Your task to perform on an android device: Open Maps and search for coffee Image 0: 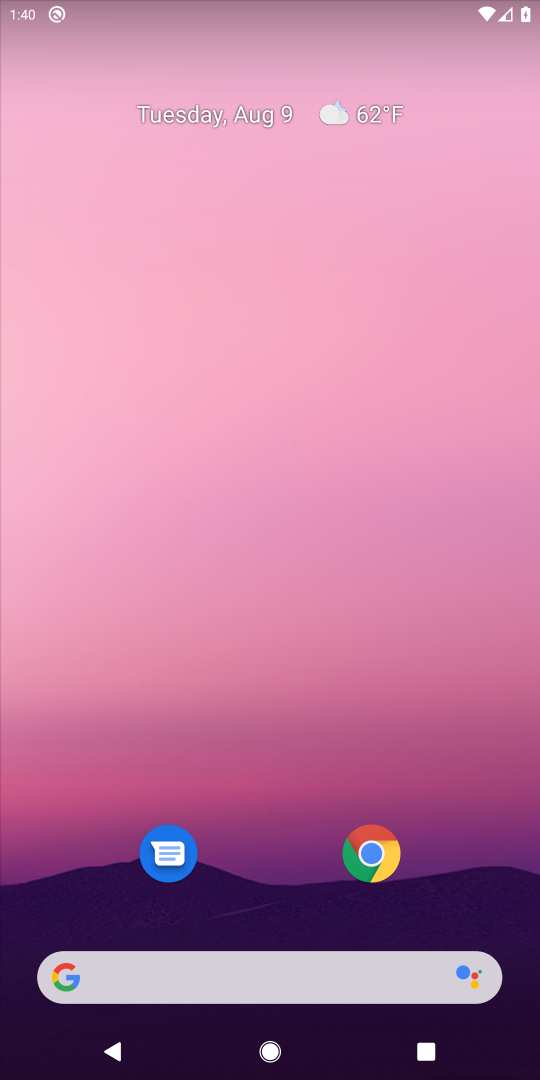
Step 0: press home button
Your task to perform on an android device: Open Maps and search for coffee Image 1: 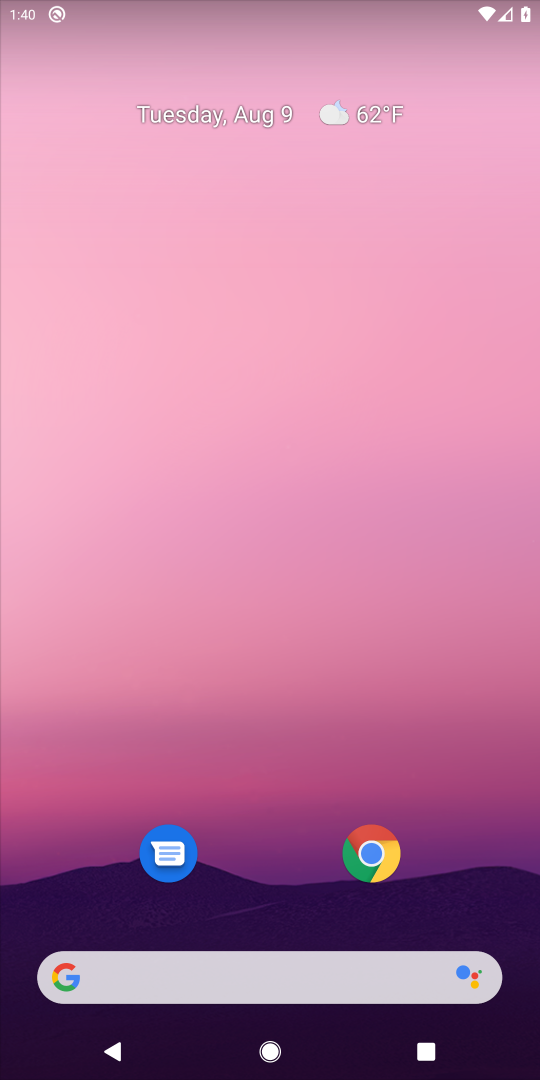
Step 1: drag from (285, 903) to (281, 85)
Your task to perform on an android device: Open Maps and search for coffee Image 2: 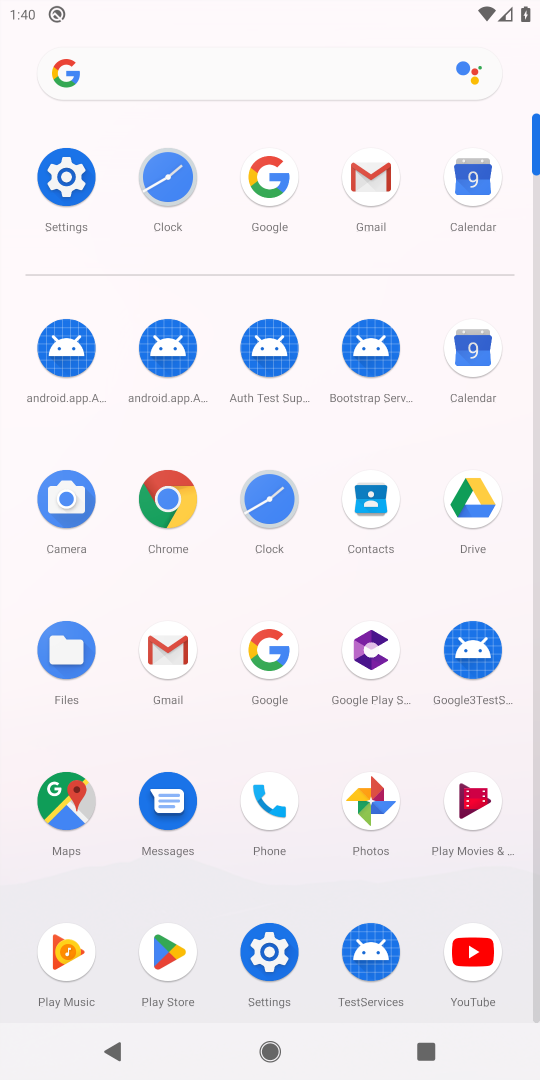
Step 2: click (74, 805)
Your task to perform on an android device: Open Maps and search for coffee Image 3: 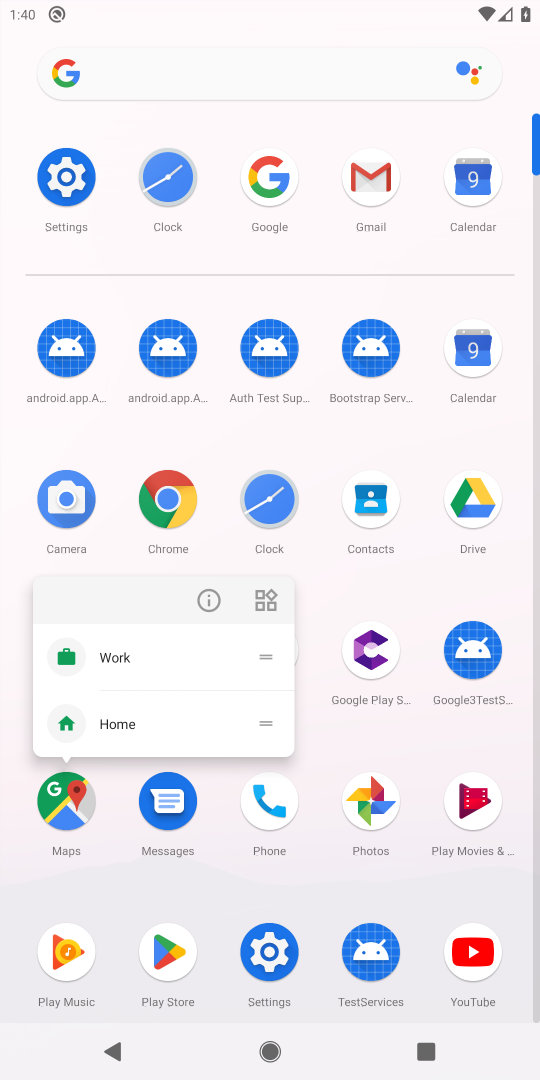
Step 3: click (71, 819)
Your task to perform on an android device: Open Maps and search for coffee Image 4: 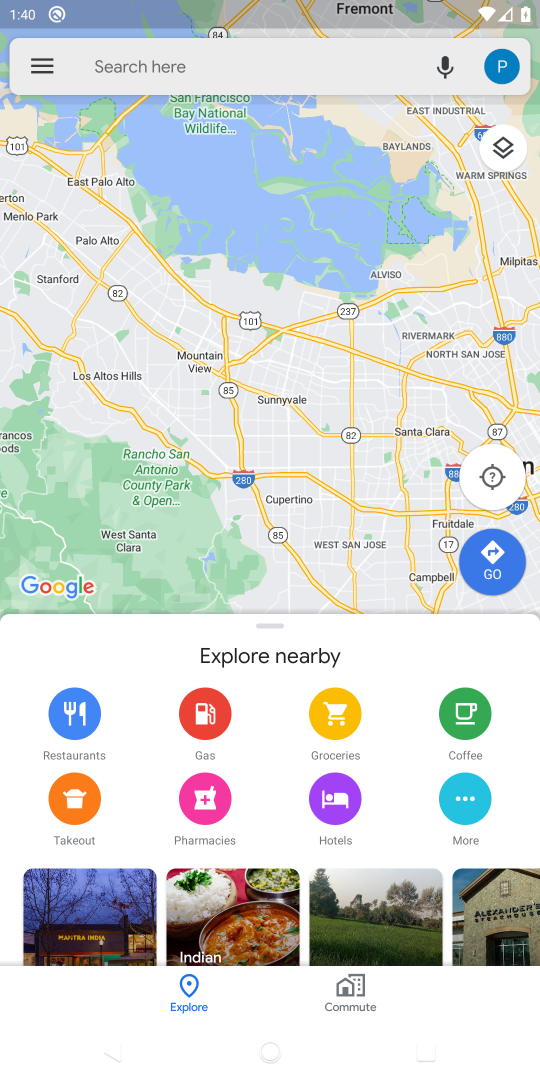
Step 4: click (239, 77)
Your task to perform on an android device: Open Maps and search for coffee Image 5: 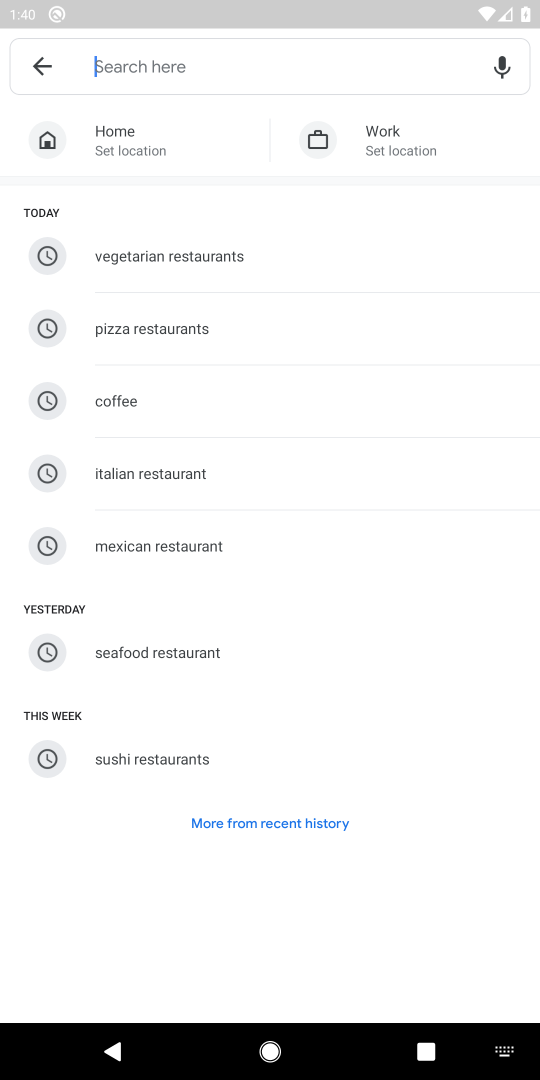
Step 5: click (118, 403)
Your task to perform on an android device: Open Maps and search for coffee Image 6: 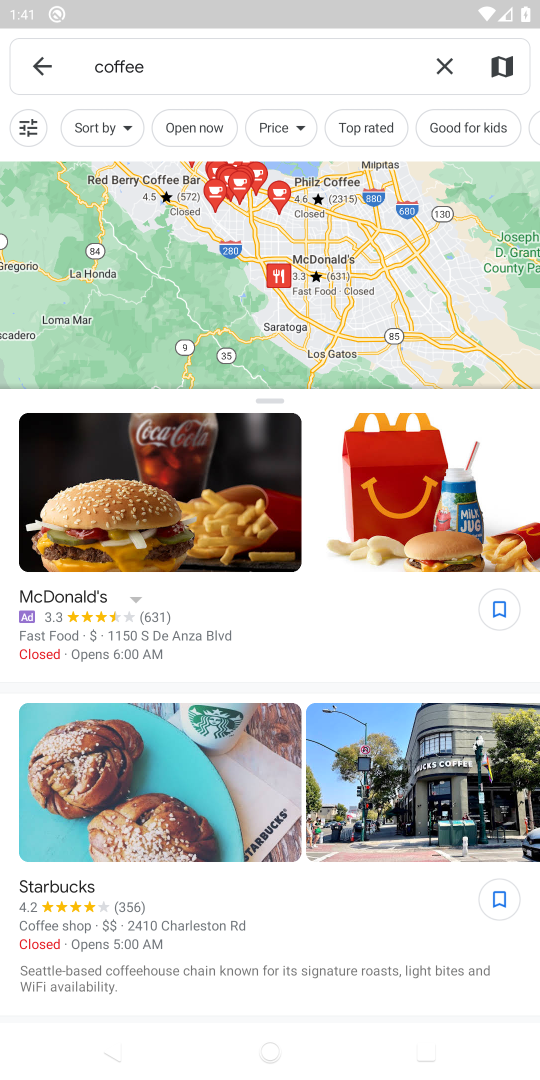
Step 6: task complete